Your task to perform on an android device: delete a single message in the gmail app Image 0: 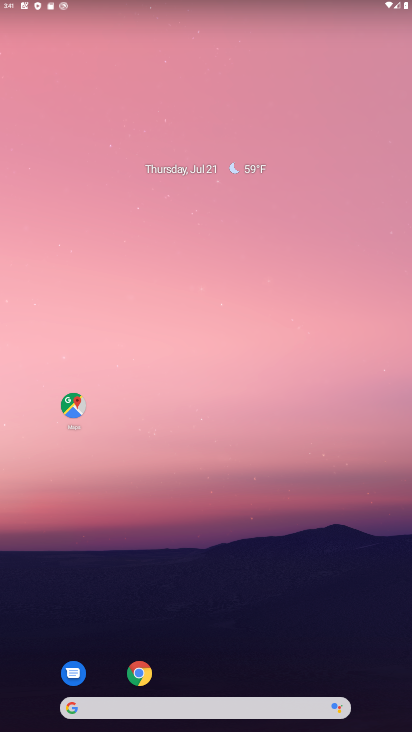
Step 0: drag from (360, 641) to (319, 119)
Your task to perform on an android device: delete a single message in the gmail app Image 1: 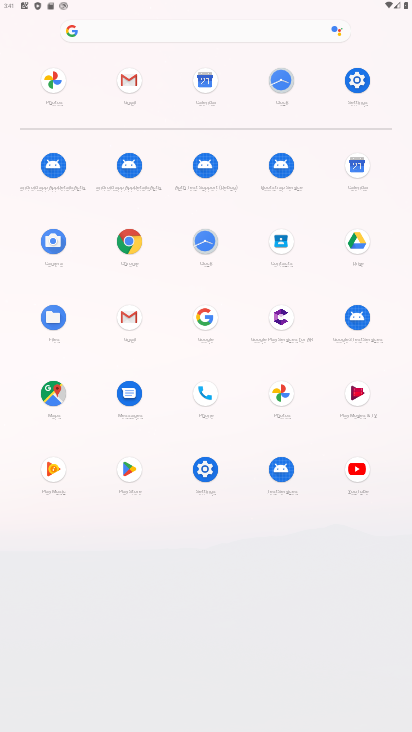
Step 1: click (126, 317)
Your task to perform on an android device: delete a single message in the gmail app Image 2: 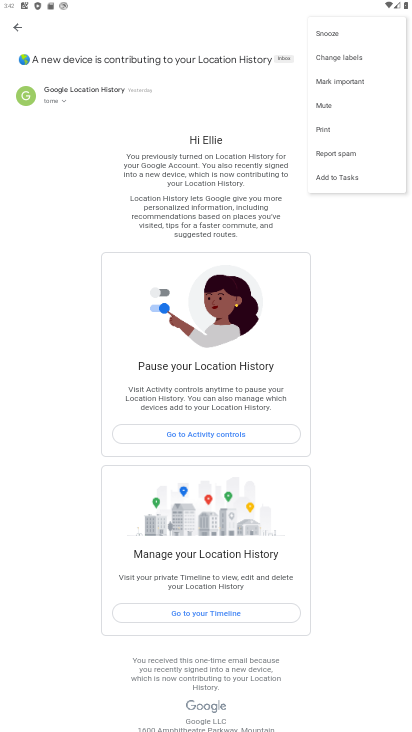
Step 2: press back button
Your task to perform on an android device: delete a single message in the gmail app Image 3: 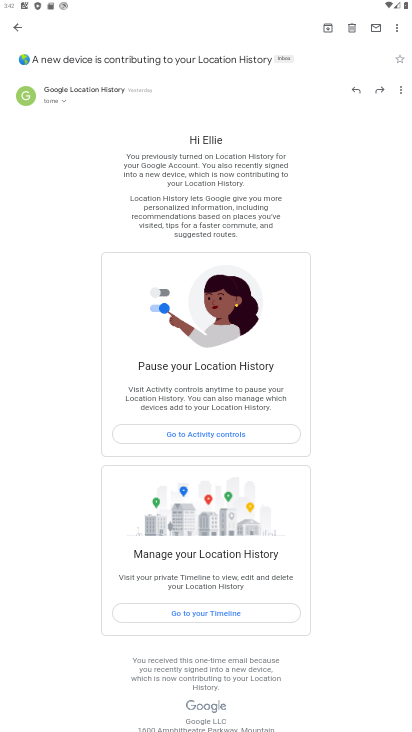
Step 3: click (349, 31)
Your task to perform on an android device: delete a single message in the gmail app Image 4: 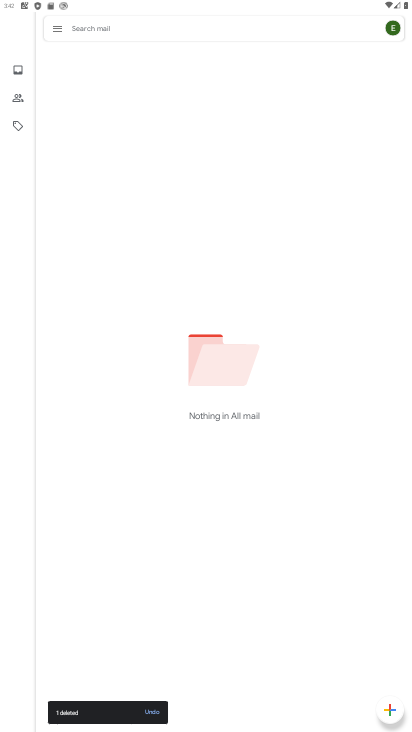
Step 4: task complete